Your task to perform on an android device: Open calendar and show me the third week of next month Image 0: 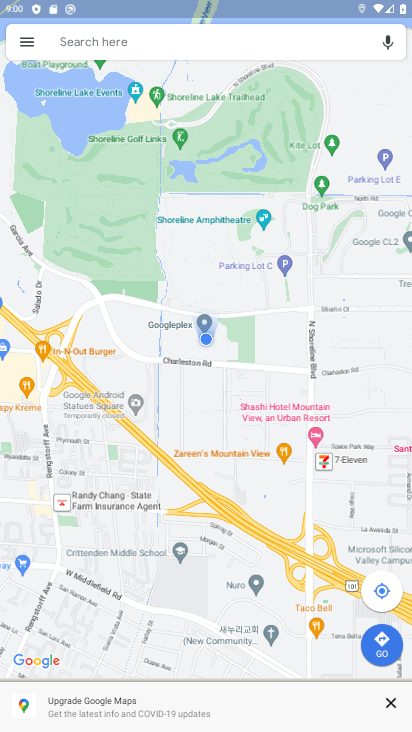
Step 0: press home button
Your task to perform on an android device: Open calendar and show me the third week of next month Image 1: 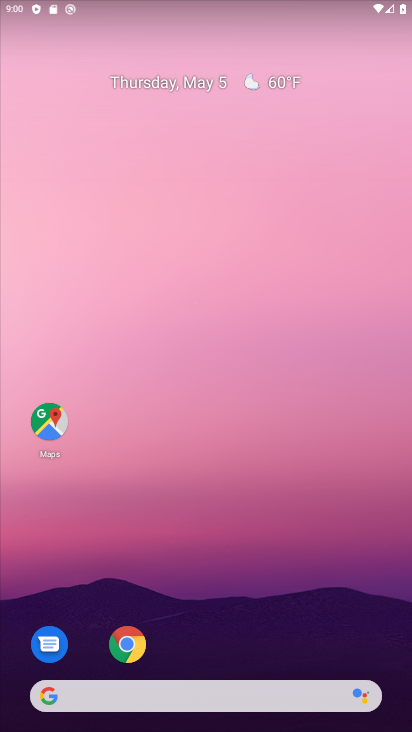
Step 1: drag from (180, 613) to (214, 190)
Your task to perform on an android device: Open calendar and show me the third week of next month Image 2: 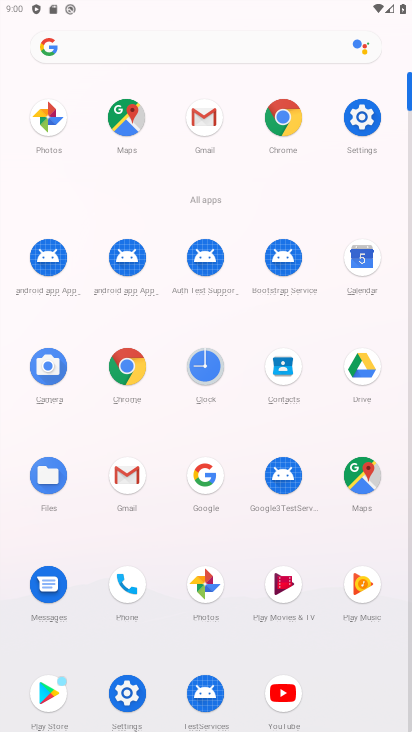
Step 2: click (362, 260)
Your task to perform on an android device: Open calendar and show me the third week of next month Image 3: 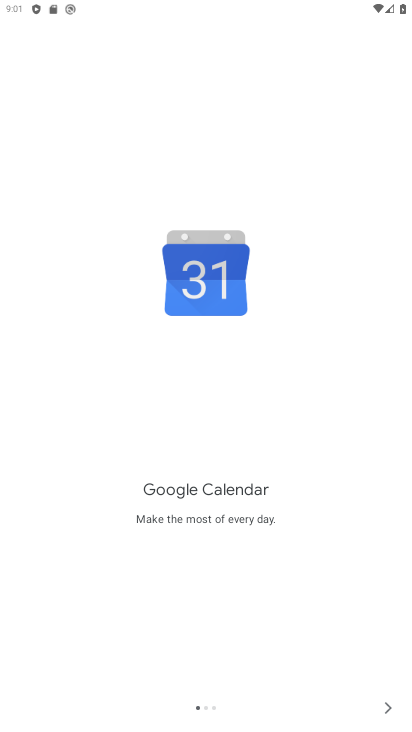
Step 3: click (385, 712)
Your task to perform on an android device: Open calendar and show me the third week of next month Image 4: 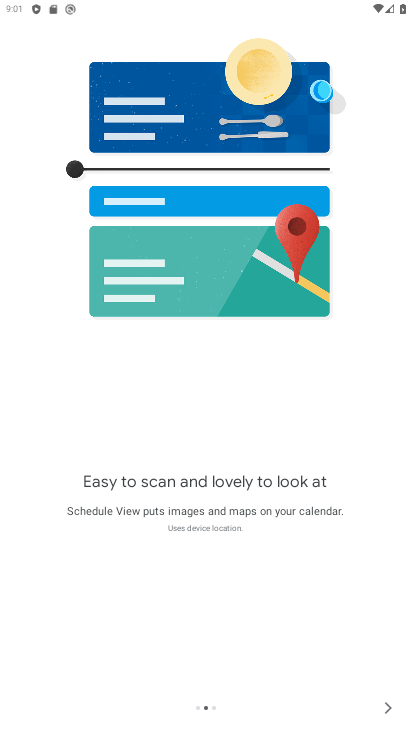
Step 4: click (385, 712)
Your task to perform on an android device: Open calendar and show me the third week of next month Image 5: 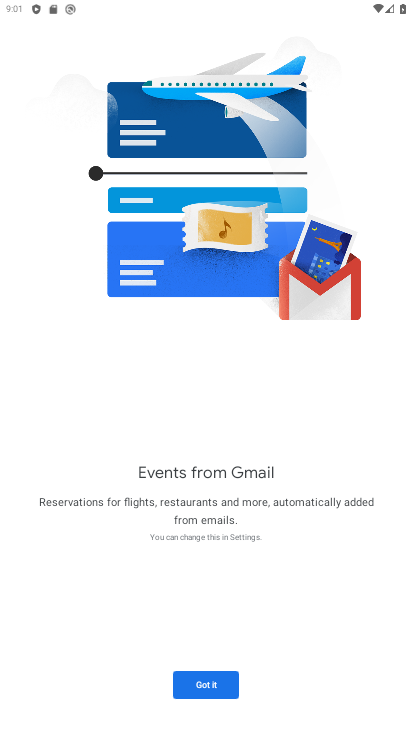
Step 5: click (385, 712)
Your task to perform on an android device: Open calendar and show me the third week of next month Image 6: 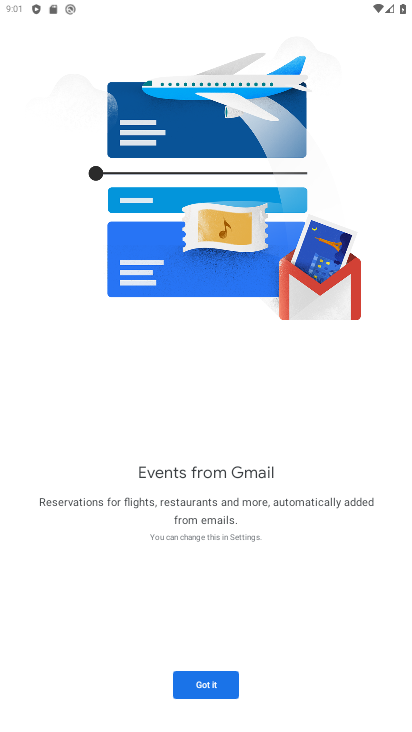
Step 6: click (194, 674)
Your task to perform on an android device: Open calendar and show me the third week of next month Image 7: 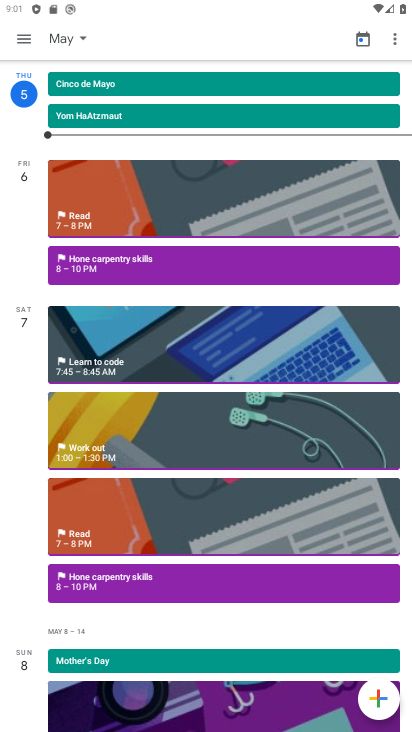
Step 7: click (72, 42)
Your task to perform on an android device: Open calendar and show me the third week of next month Image 8: 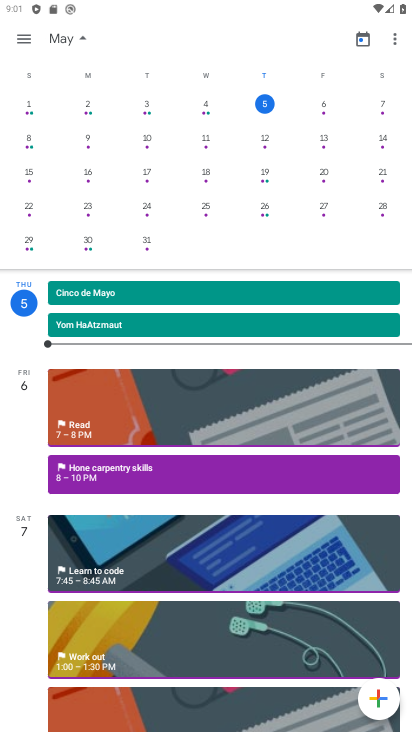
Step 8: drag from (374, 215) to (12, 192)
Your task to perform on an android device: Open calendar and show me the third week of next month Image 9: 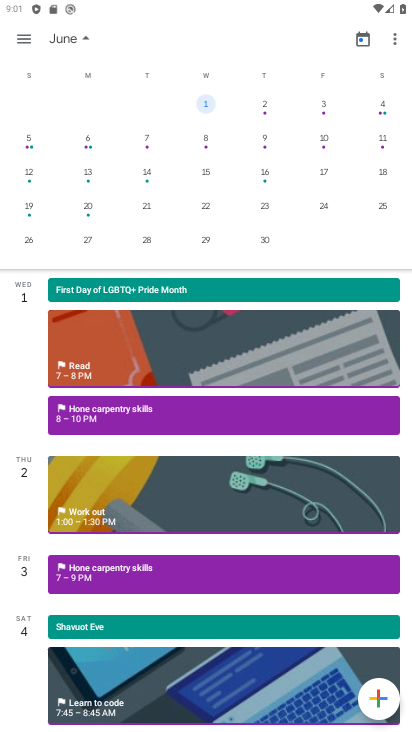
Step 9: click (22, 33)
Your task to perform on an android device: Open calendar and show me the third week of next month Image 10: 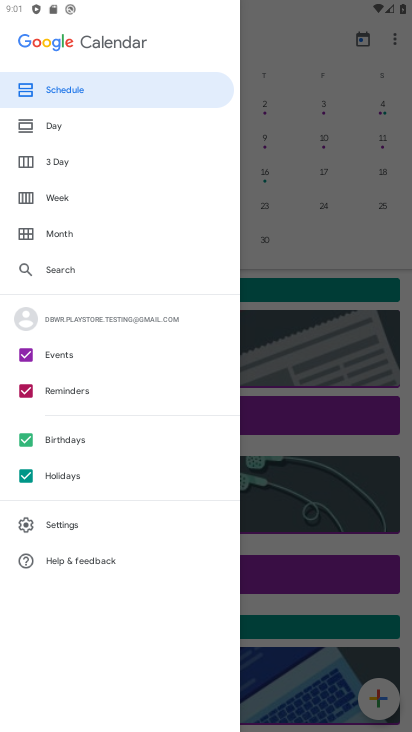
Step 10: click (75, 201)
Your task to perform on an android device: Open calendar and show me the third week of next month Image 11: 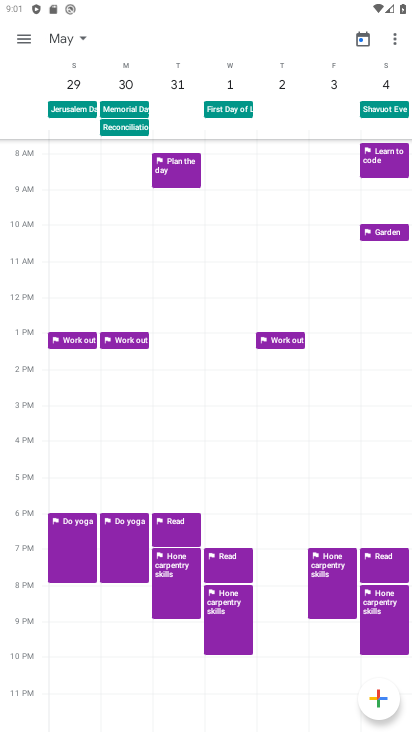
Step 11: task complete